Your task to perform on an android device: turn on the 12-hour format for clock Image 0: 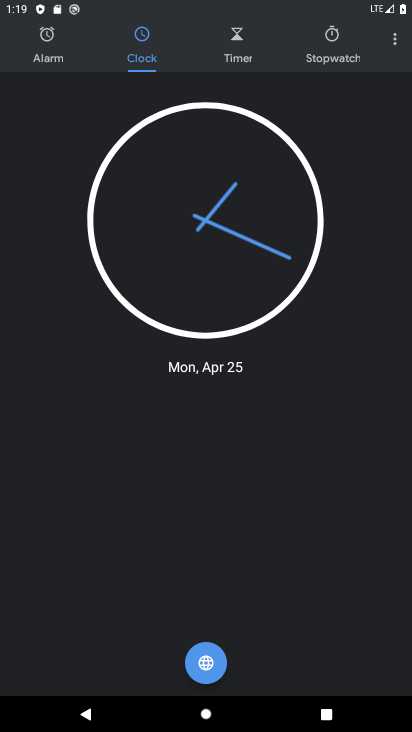
Step 0: click (396, 41)
Your task to perform on an android device: turn on the 12-hour format for clock Image 1: 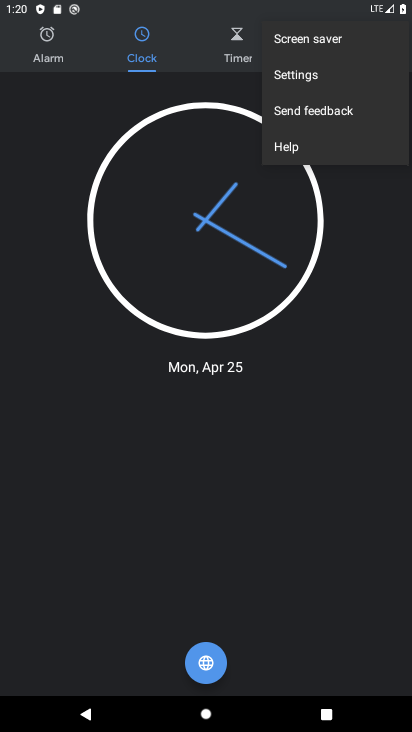
Step 1: click (339, 87)
Your task to perform on an android device: turn on the 12-hour format for clock Image 2: 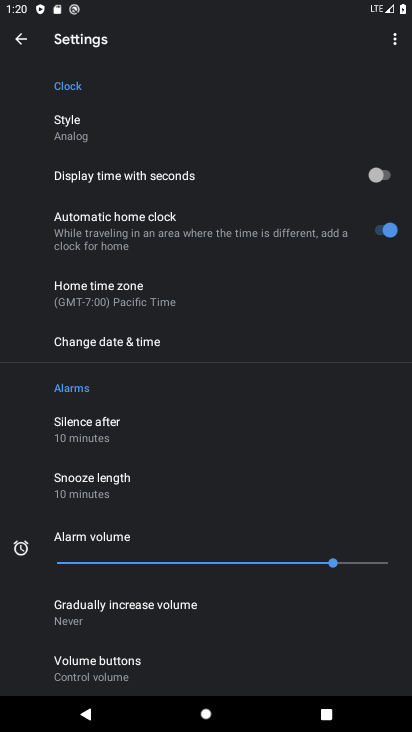
Step 2: click (105, 336)
Your task to perform on an android device: turn on the 12-hour format for clock Image 3: 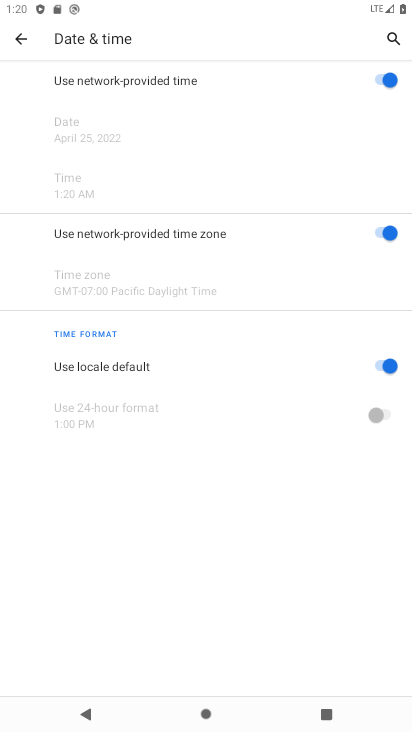
Step 3: task complete